Your task to perform on an android device: Open wifi settings Image 0: 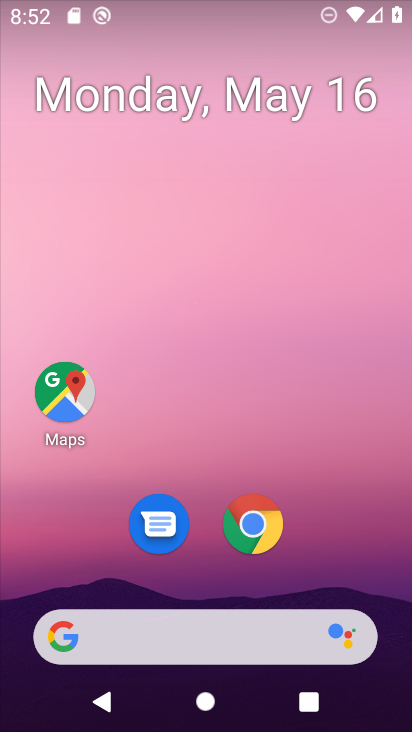
Step 0: drag from (355, 552) to (264, 32)
Your task to perform on an android device: Open wifi settings Image 1: 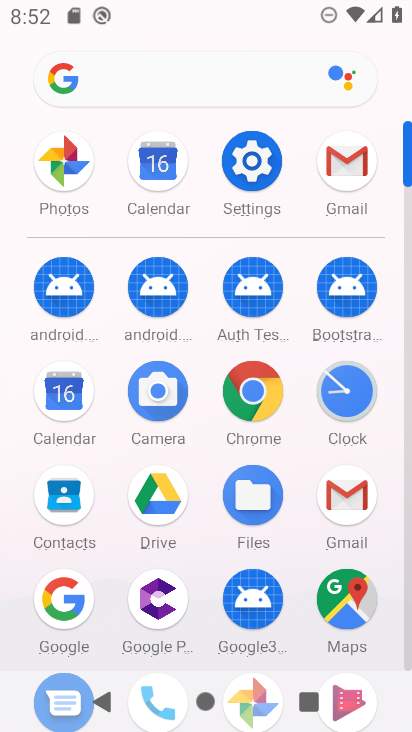
Step 1: click (256, 163)
Your task to perform on an android device: Open wifi settings Image 2: 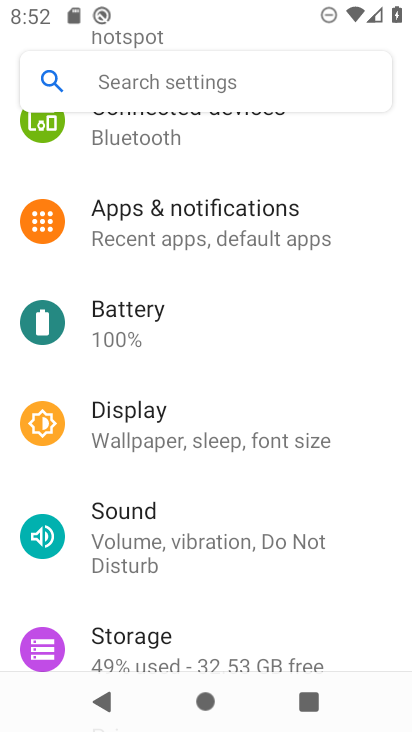
Step 2: drag from (235, 282) to (248, 659)
Your task to perform on an android device: Open wifi settings Image 3: 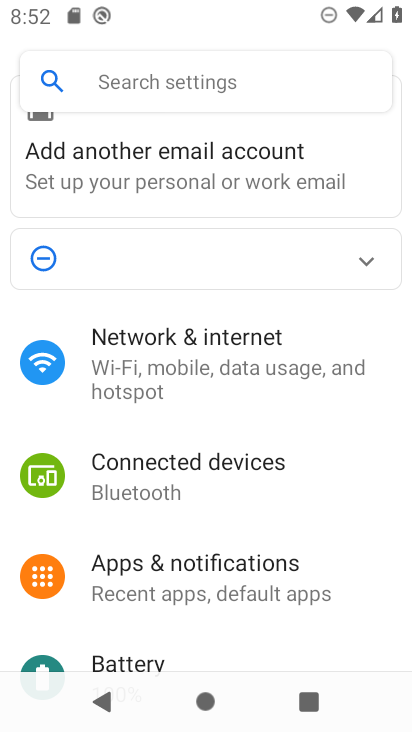
Step 3: click (227, 342)
Your task to perform on an android device: Open wifi settings Image 4: 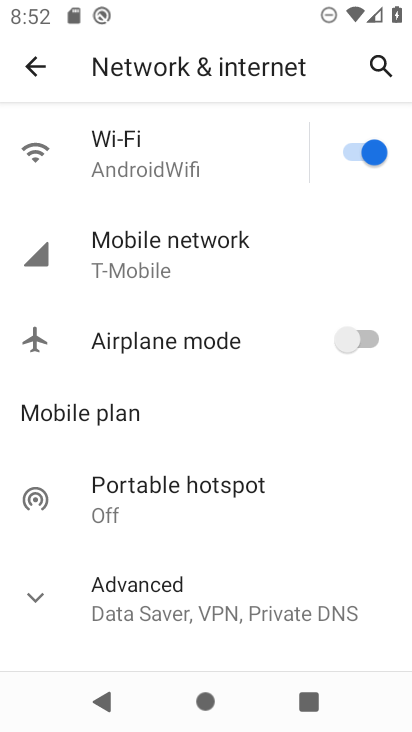
Step 4: click (221, 146)
Your task to perform on an android device: Open wifi settings Image 5: 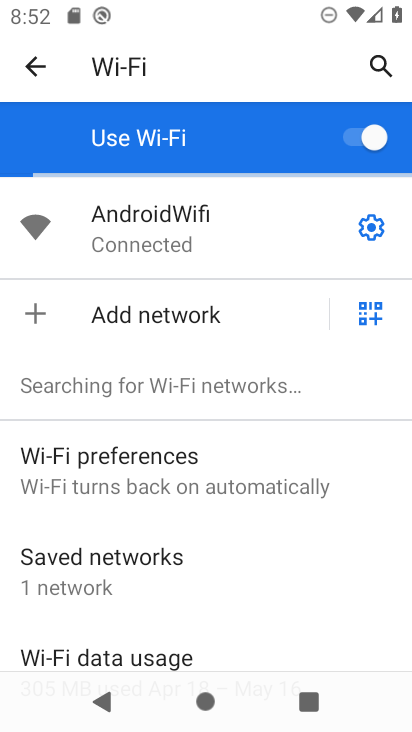
Step 5: task complete